Your task to perform on an android device: turn on notifications settings in the gmail app Image 0: 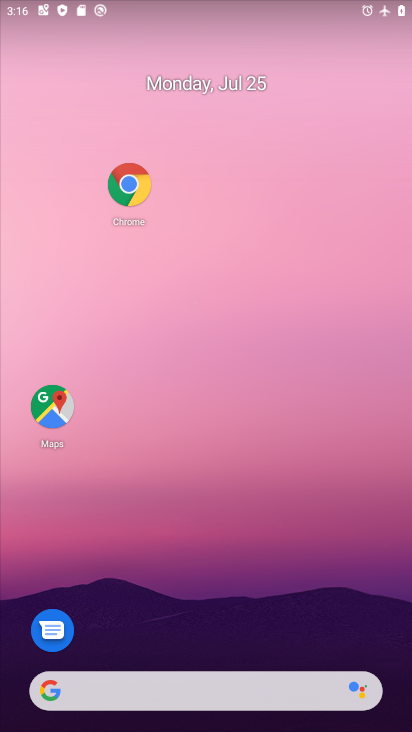
Step 0: drag from (252, 630) to (255, 117)
Your task to perform on an android device: turn on notifications settings in the gmail app Image 1: 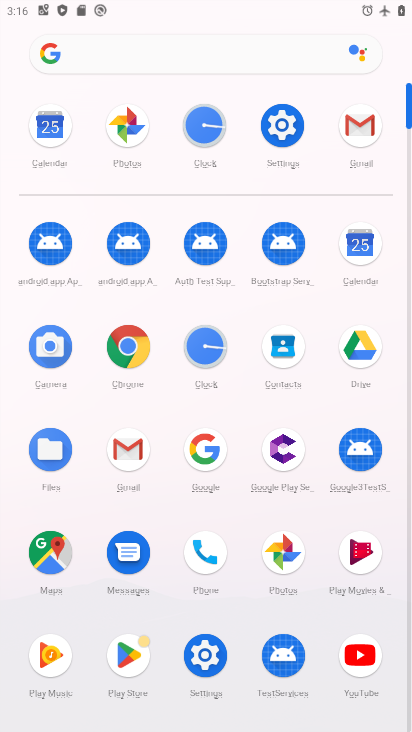
Step 1: click (351, 142)
Your task to perform on an android device: turn on notifications settings in the gmail app Image 2: 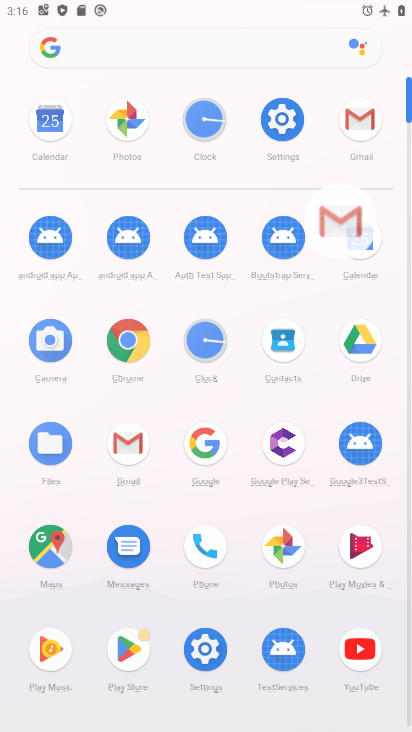
Step 2: task complete